Your task to perform on an android device: What's on my calendar today? Image 0: 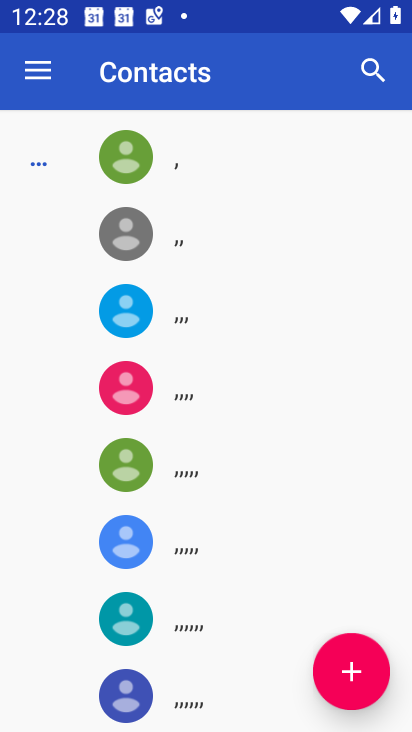
Step 0: press home button
Your task to perform on an android device: What's on my calendar today? Image 1: 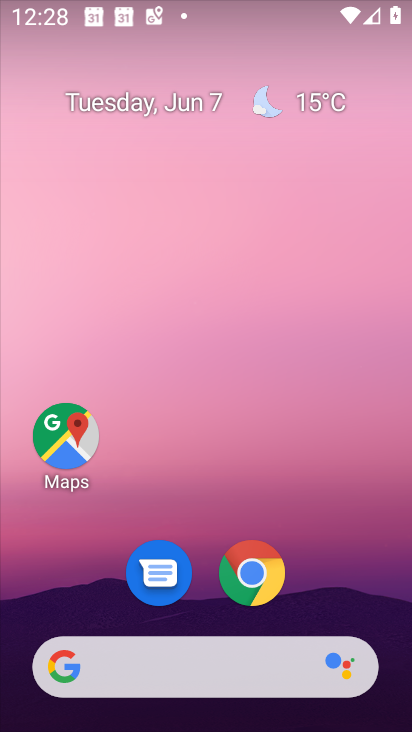
Step 1: drag from (318, 575) to (350, 81)
Your task to perform on an android device: What's on my calendar today? Image 2: 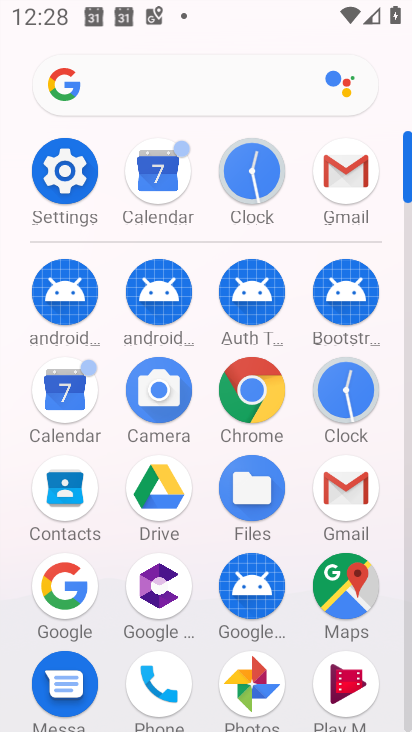
Step 2: click (169, 174)
Your task to perform on an android device: What's on my calendar today? Image 3: 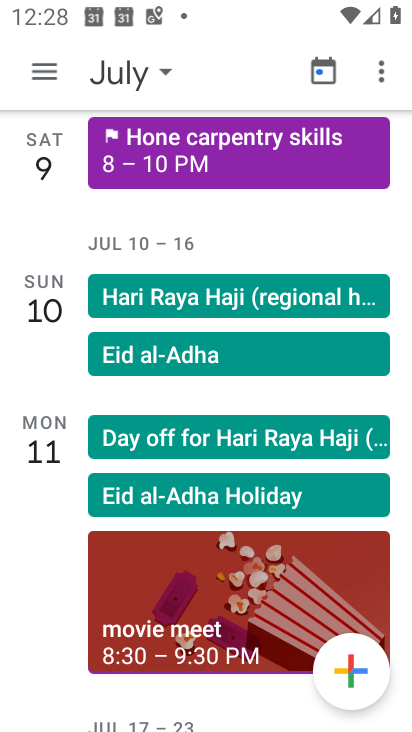
Step 3: click (51, 74)
Your task to perform on an android device: What's on my calendar today? Image 4: 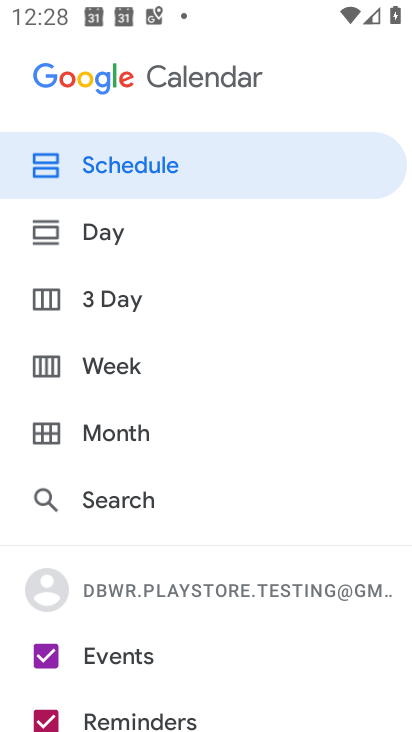
Step 4: click (122, 430)
Your task to perform on an android device: What's on my calendar today? Image 5: 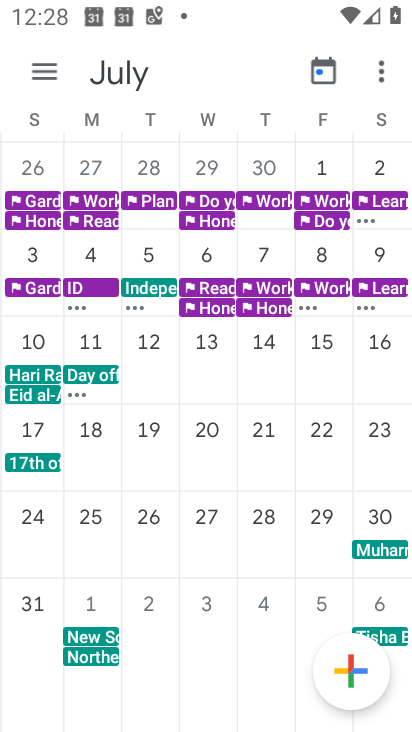
Step 5: drag from (47, 274) to (385, 300)
Your task to perform on an android device: What's on my calendar today? Image 6: 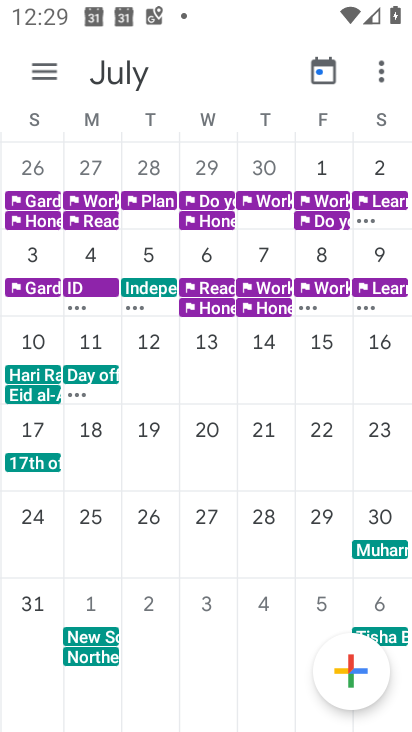
Step 6: drag from (19, 249) to (0, 279)
Your task to perform on an android device: What's on my calendar today? Image 7: 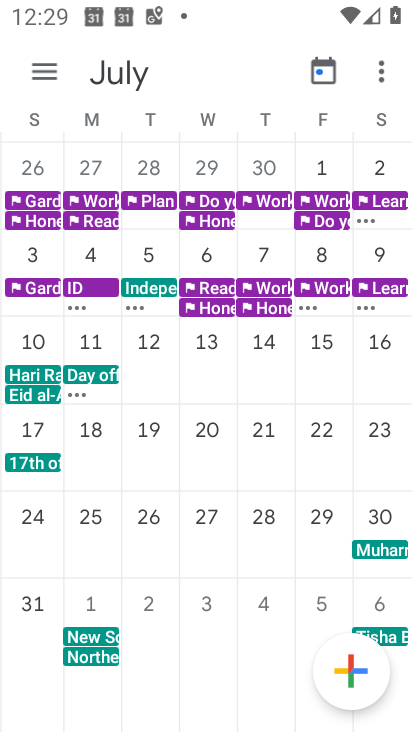
Step 7: click (15, 244)
Your task to perform on an android device: What's on my calendar today? Image 8: 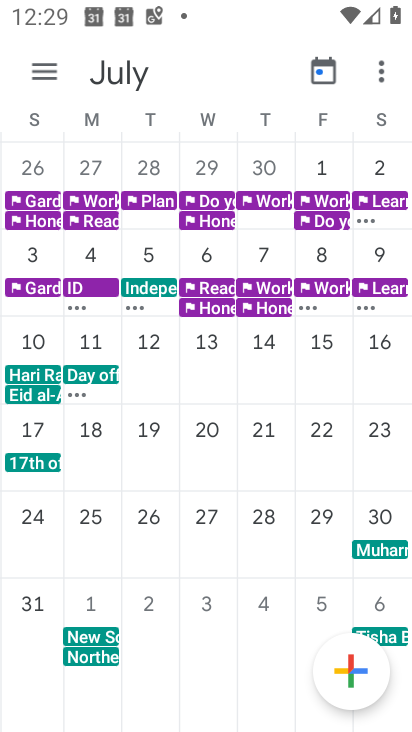
Step 8: drag from (133, 238) to (412, 337)
Your task to perform on an android device: What's on my calendar today? Image 9: 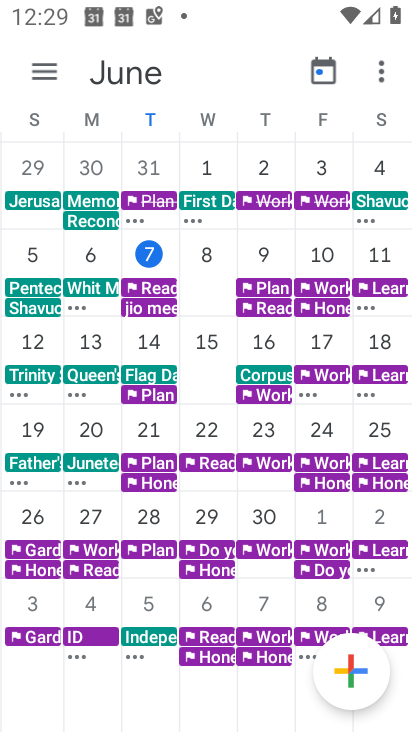
Step 9: click (143, 264)
Your task to perform on an android device: What's on my calendar today? Image 10: 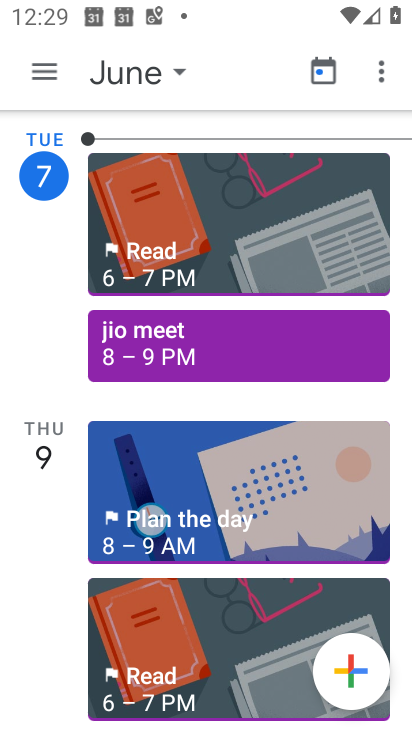
Step 10: task complete